Your task to perform on an android device: toggle javascript in the chrome app Image 0: 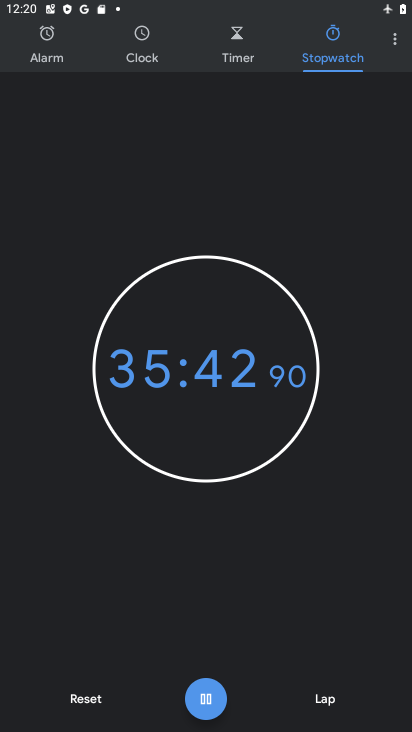
Step 0: click (93, 691)
Your task to perform on an android device: toggle javascript in the chrome app Image 1: 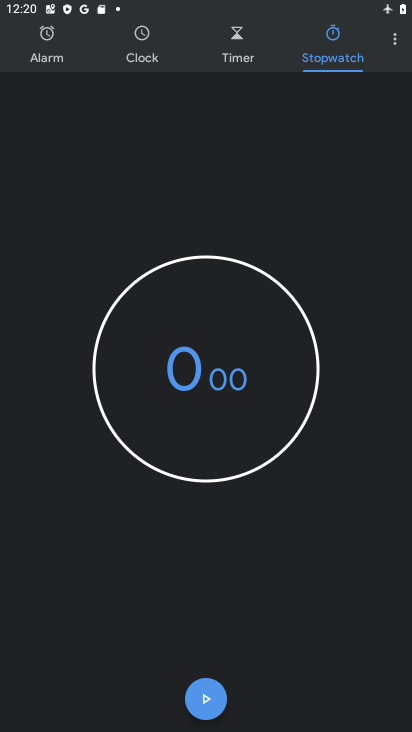
Step 1: click (86, 694)
Your task to perform on an android device: toggle javascript in the chrome app Image 2: 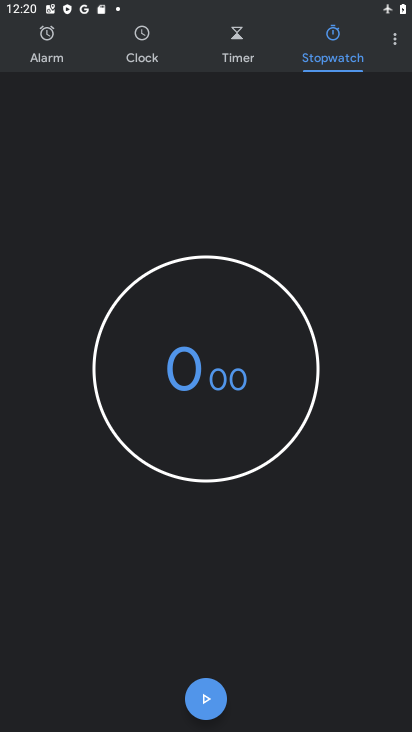
Step 2: click (335, 579)
Your task to perform on an android device: toggle javascript in the chrome app Image 3: 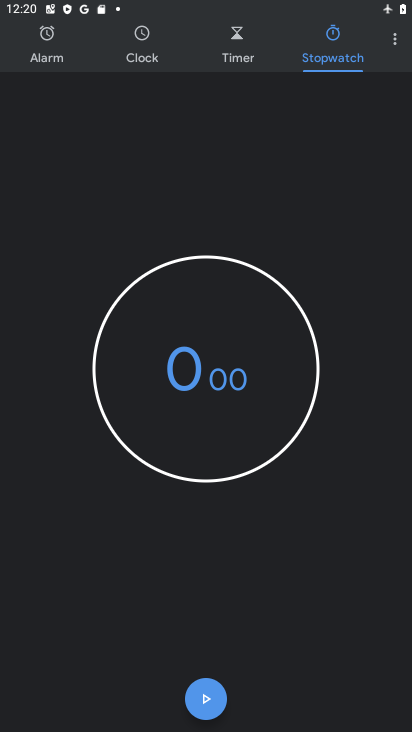
Step 3: press home button
Your task to perform on an android device: toggle javascript in the chrome app Image 4: 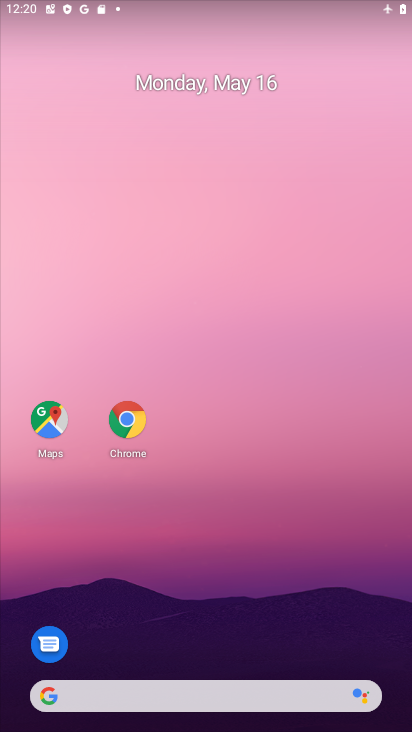
Step 4: click (116, 414)
Your task to perform on an android device: toggle javascript in the chrome app Image 5: 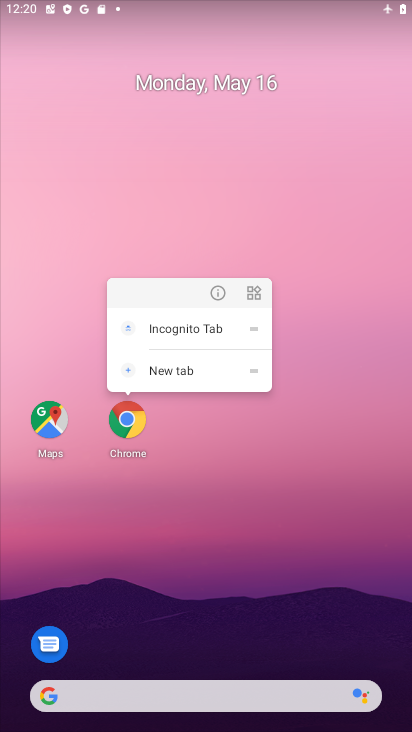
Step 5: click (221, 295)
Your task to perform on an android device: toggle javascript in the chrome app Image 6: 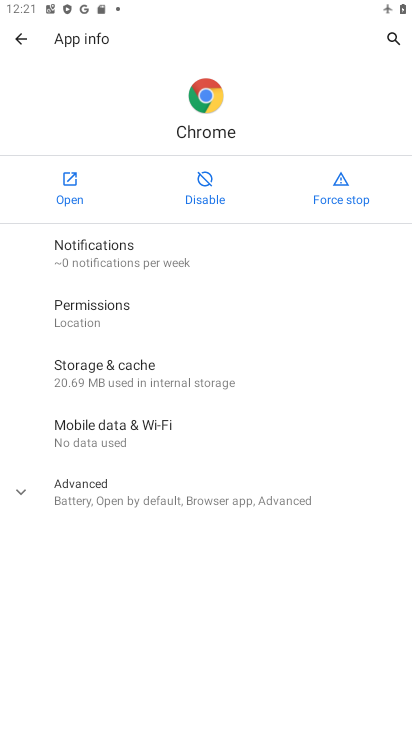
Step 6: click (68, 186)
Your task to perform on an android device: toggle javascript in the chrome app Image 7: 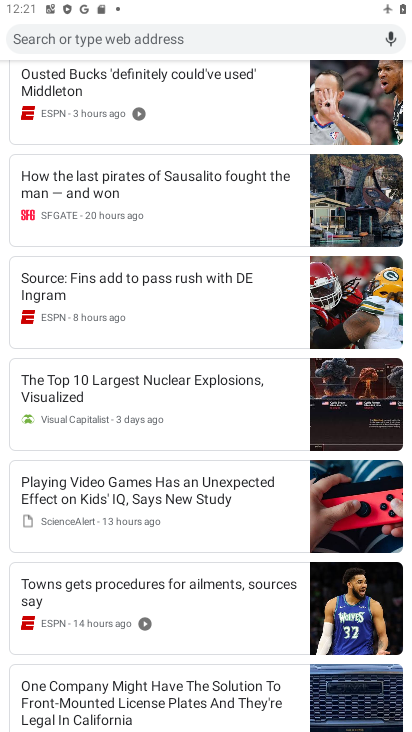
Step 7: drag from (222, 202) to (293, 728)
Your task to perform on an android device: toggle javascript in the chrome app Image 8: 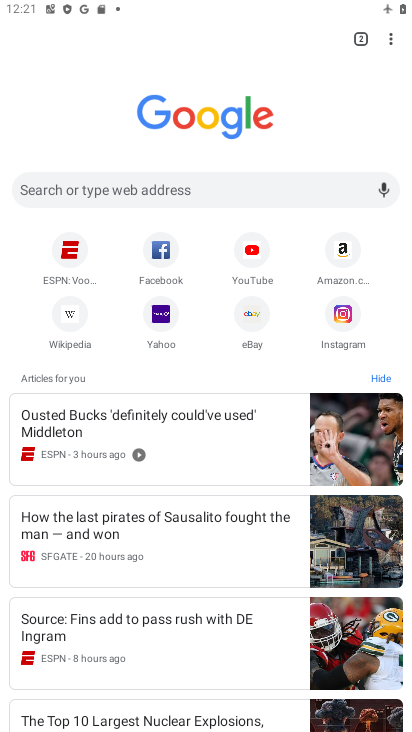
Step 8: drag from (389, 35) to (293, 330)
Your task to perform on an android device: toggle javascript in the chrome app Image 9: 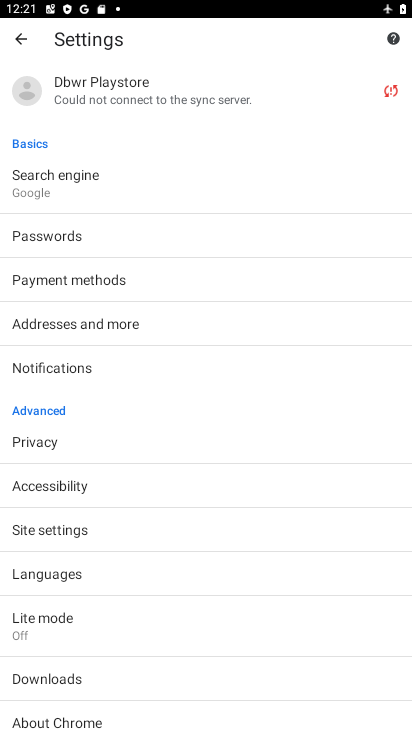
Step 9: drag from (158, 520) to (283, 172)
Your task to perform on an android device: toggle javascript in the chrome app Image 10: 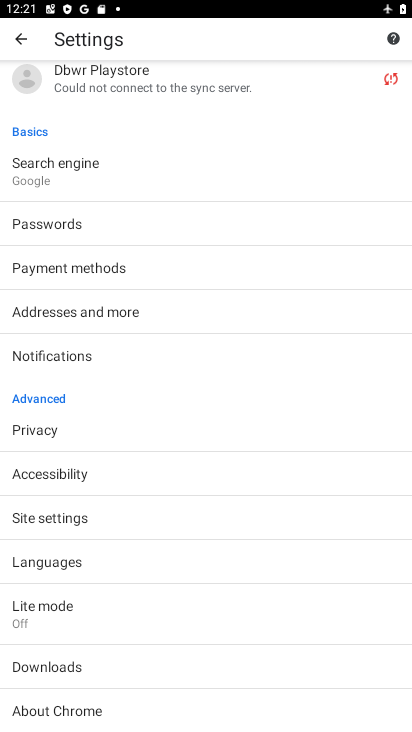
Step 10: click (110, 519)
Your task to perform on an android device: toggle javascript in the chrome app Image 11: 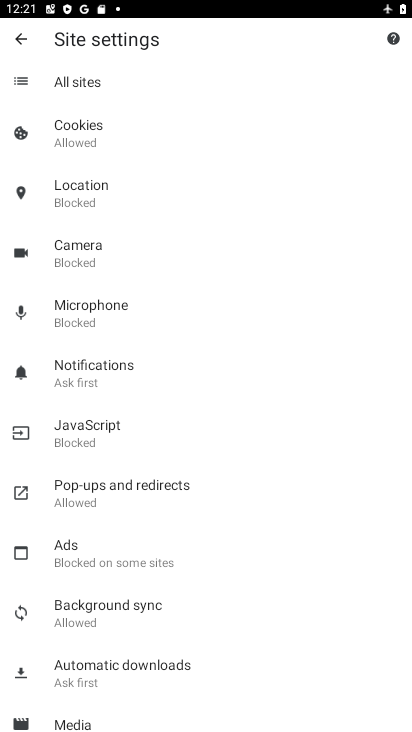
Step 11: click (115, 426)
Your task to perform on an android device: toggle javascript in the chrome app Image 12: 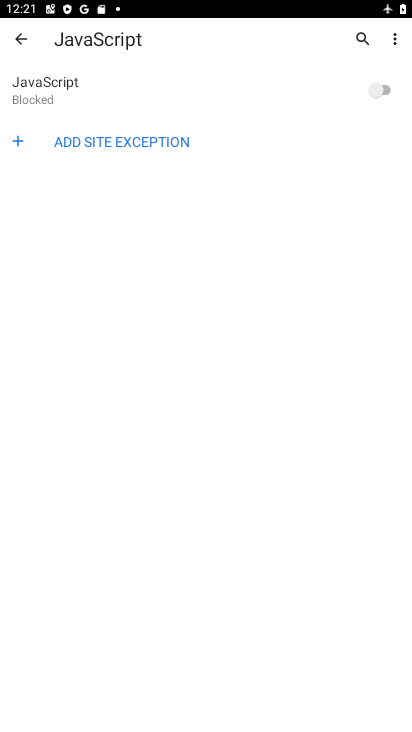
Step 12: click (339, 90)
Your task to perform on an android device: toggle javascript in the chrome app Image 13: 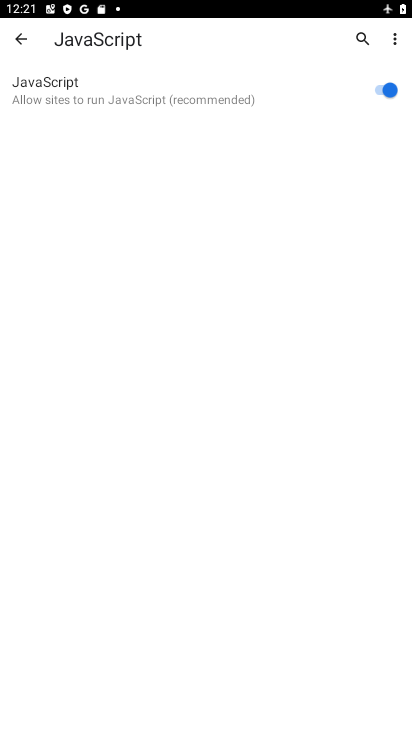
Step 13: task complete